Your task to perform on an android device: Go to Maps Image 0: 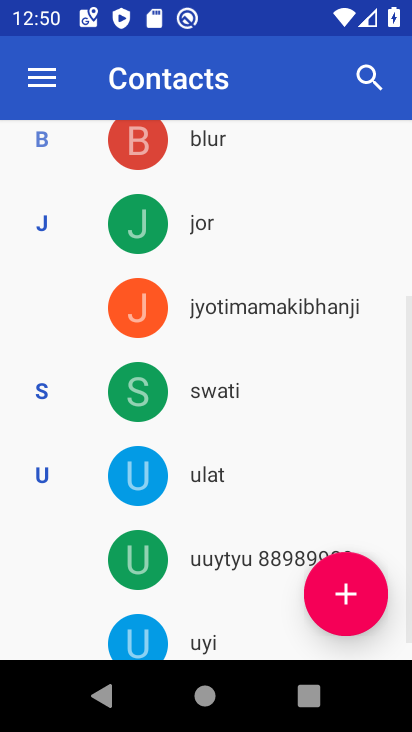
Step 0: press home button
Your task to perform on an android device: Go to Maps Image 1: 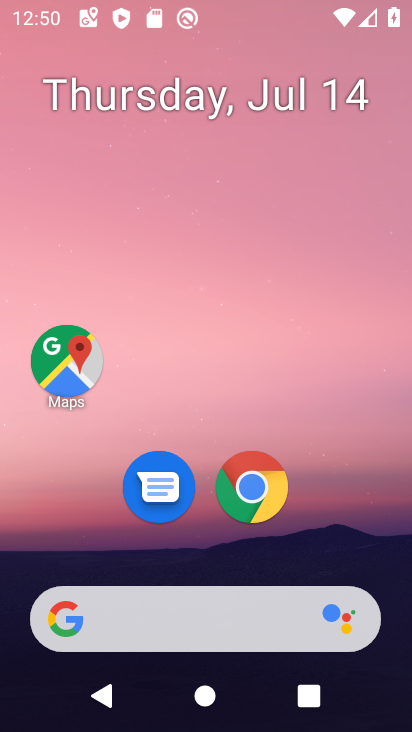
Step 1: drag from (224, 618) to (224, 126)
Your task to perform on an android device: Go to Maps Image 2: 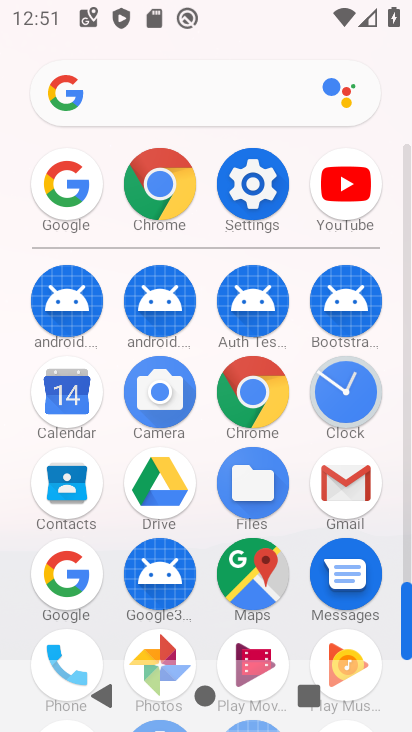
Step 2: click (260, 573)
Your task to perform on an android device: Go to Maps Image 3: 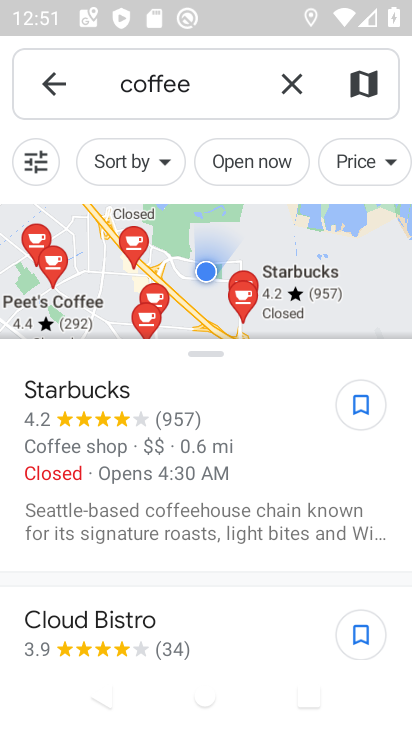
Step 3: task complete